Your task to perform on an android device: turn on priority inbox in the gmail app Image 0: 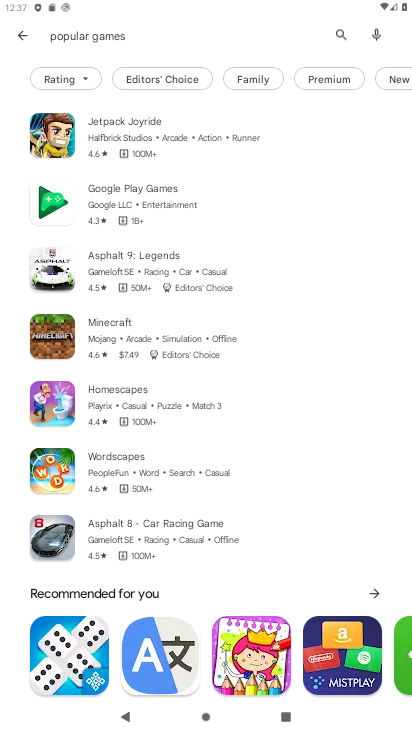
Step 0: press home button
Your task to perform on an android device: turn on priority inbox in the gmail app Image 1: 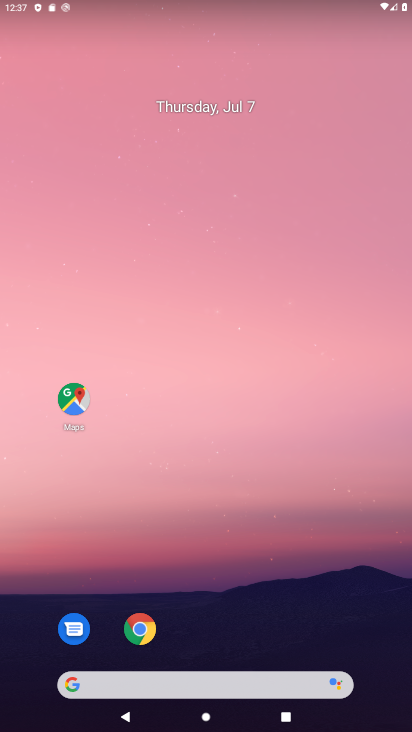
Step 1: drag from (247, 604) to (210, 110)
Your task to perform on an android device: turn on priority inbox in the gmail app Image 2: 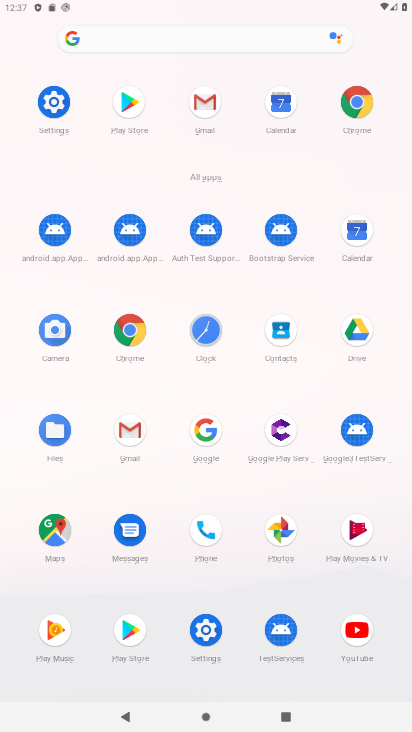
Step 2: click (205, 101)
Your task to perform on an android device: turn on priority inbox in the gmail app Image 3: 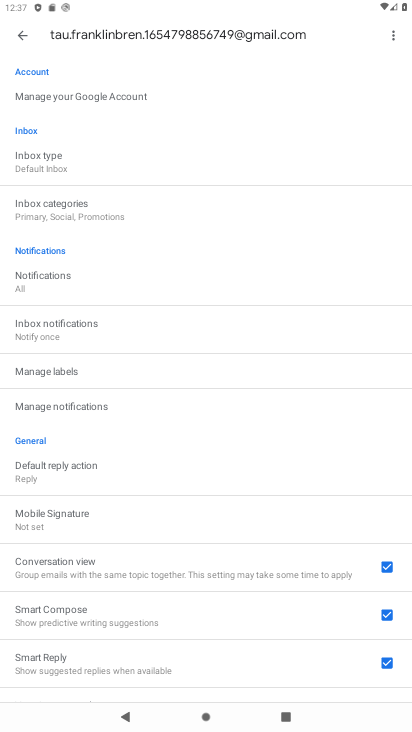
Step 3: click (61, 169)
Your task to perform on an android device: turn on priority inbox in the gmail app Image 4: 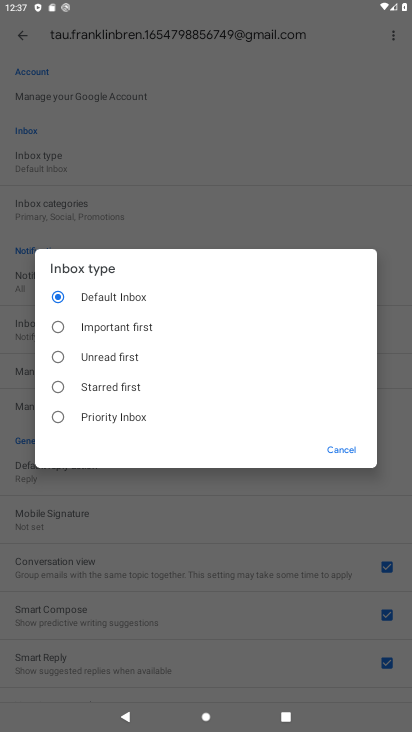
Step 4: click (58, 424)
Your task to perform on an android device: turn on priority inbox in the gmail app Image 5: 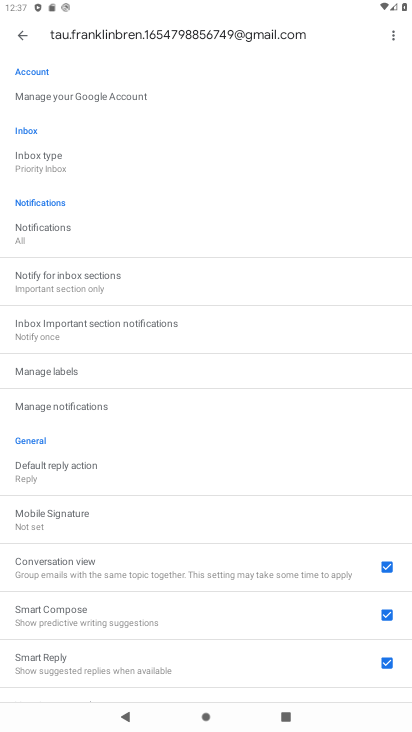
Step 5: task complete